Your task to perform on an android device: Open internet settings Image 0: 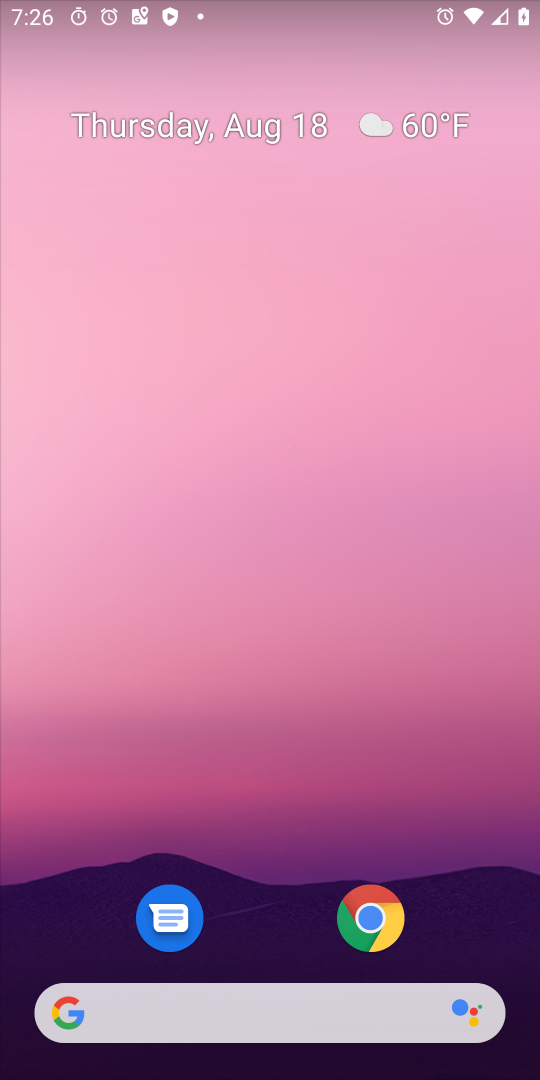
Step 0: press home button
Your task to perform on an android device: Open internet settings Image 1: 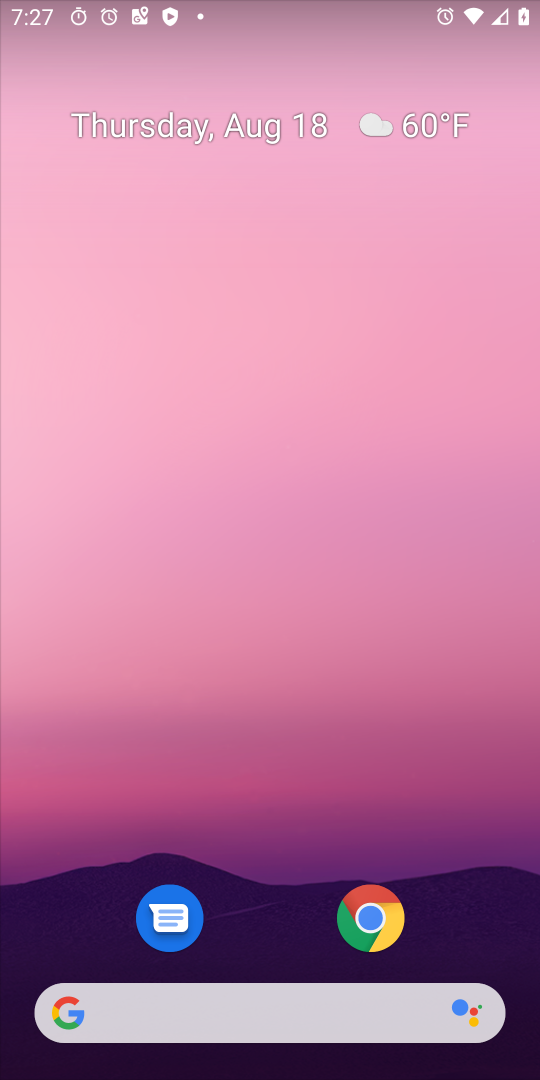
Step 1: drag from (273, 951) to (293, 26)
Your task to perform on an android device: Open internet settings Image 2: 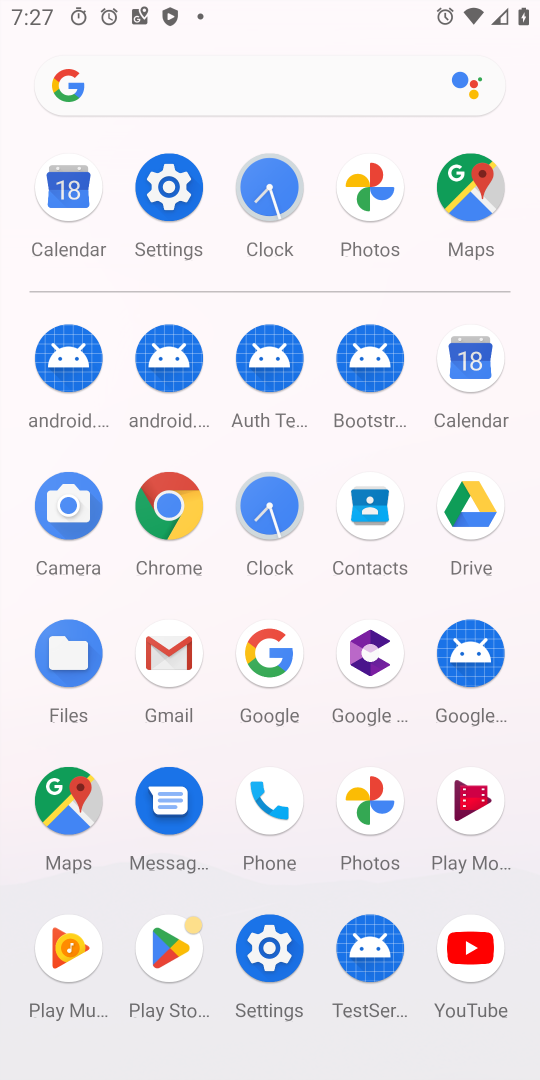
Step 2: click (198, 191)
Your task to perform on an android device: Open internet settings Image 3: 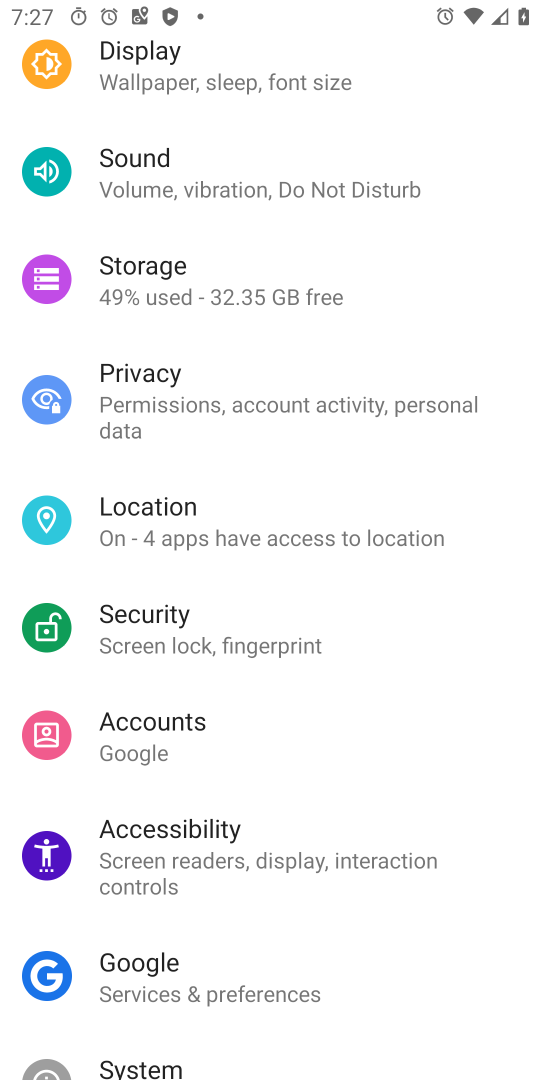
Step 3: drag from (367, 360) to (255, 1039)
Your task to perform on an android device: Open internet settings Image 4: 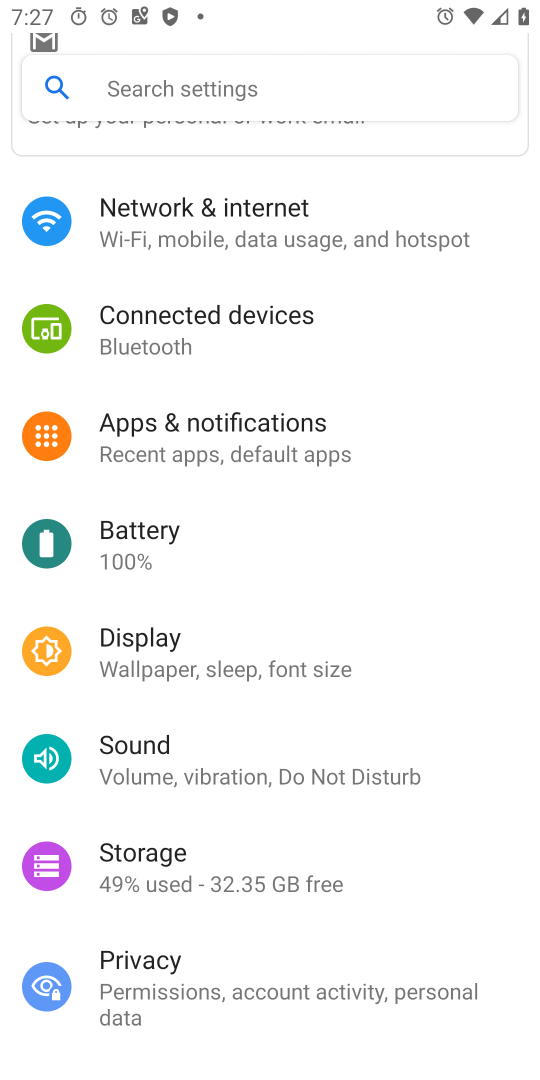
Step 4: drag from (337, 913) to (342, 476)
Your task to perform on an android device: Open internet settings Image 5: 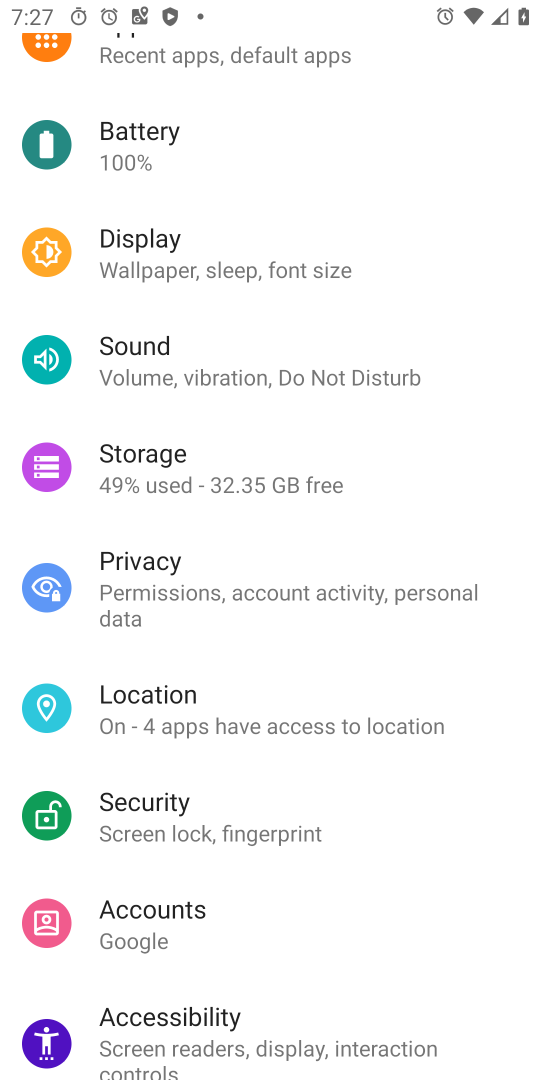
Step 5: drag from (306, 191) to (224, 829)
Your task to perform on an android device: Open internet settings Image 6: 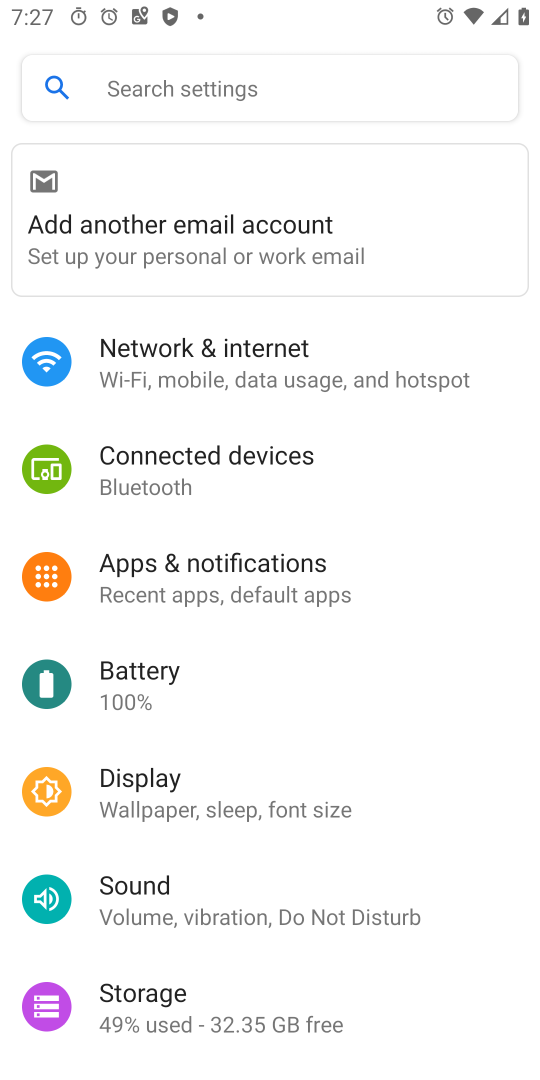
Step 6: click (137, 353)
Your task to perform on an android device: Open internet settings Image 7: 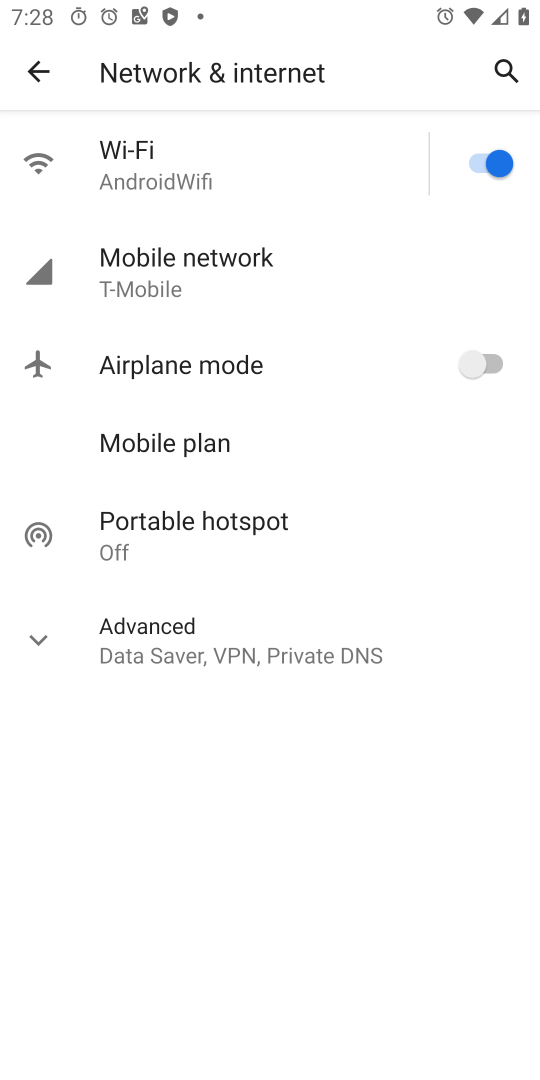
Step 7: task complete